Your task to perform on an android device: Open calendar and show me the third week of next month Image 0: 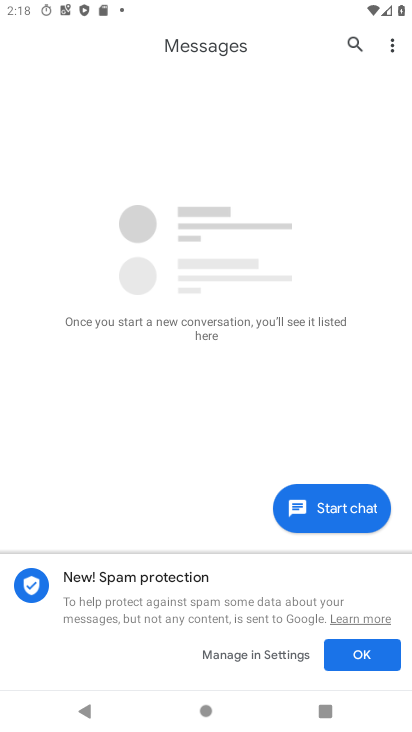
Step 0: press home button
Your task to perform on an android device: Open calendar and show me the third week of next month Image 1: 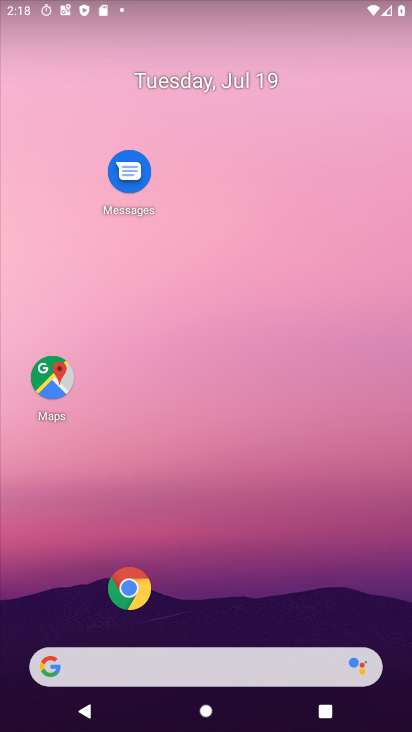
Step 1: drag from (27, 700) to (203, 237)
Your task to perform on an android device: Open calendar and show me the third week of next month Image 2: 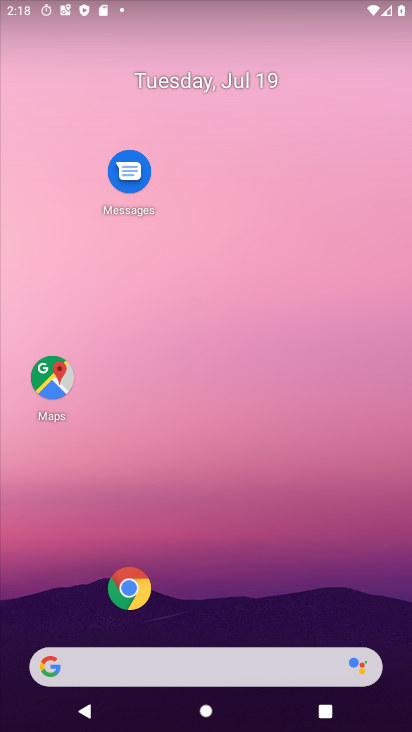
Step 2: drag from (244, 183) to (306, 60)
Your task to perform on an android device: Open calendar and show me the third week of next month Image 3: 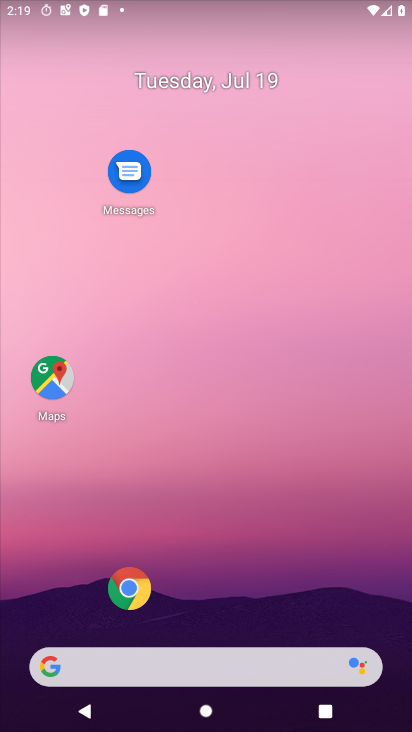
Step 3: drag from (80, 582) to (276, 130)
Your task to perform on an android device: Open calendar and show me the third week of next month Image 4: 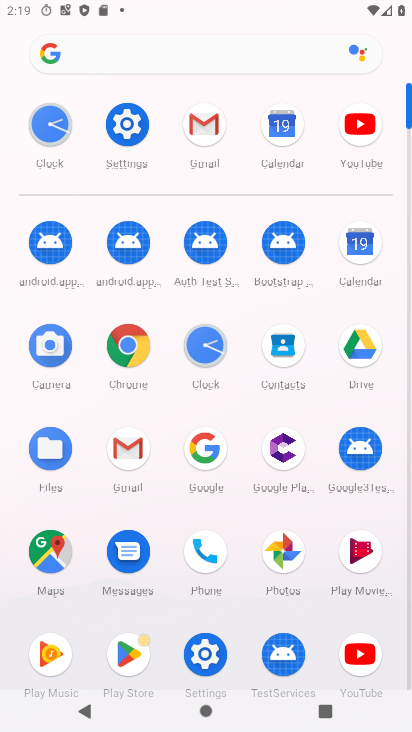
Step 4: click (371, 237)
Your task to perform on an android device: Open calendar and show me the third week of next month Image 5: 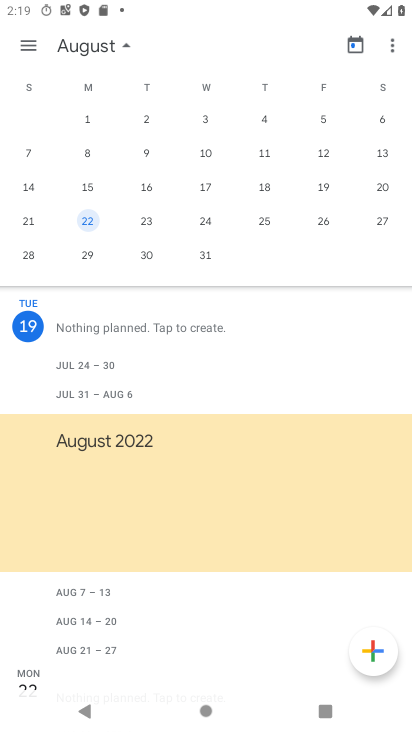
Step 5: drag from (374, 179) to (35, 121)
Your task to perform on an android device: Open calendar and show me the third week of next month Image 6: 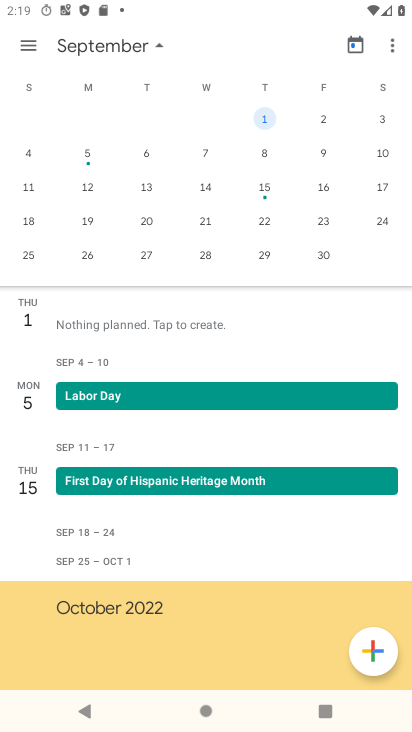
Step 6: drag from (43, 121) to (273, 140)
Your task to perform on an android device: Open calendar and show me the third week of next month Image 7: 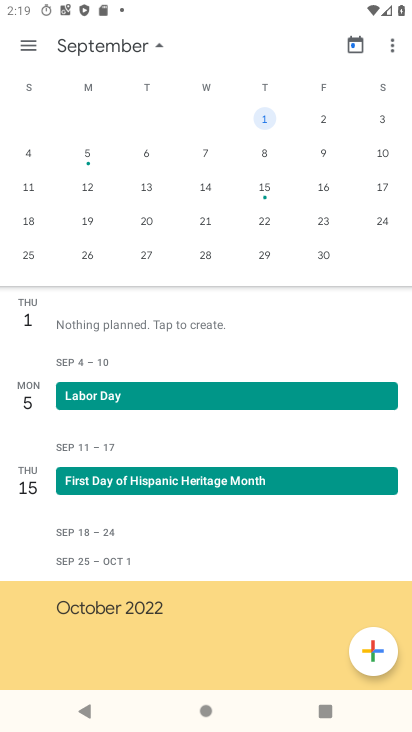
Step 7: drag from (3, 133) to (339, 169)
Your task to perform on an android device: Open calendar and show me the third week of next month Image 8: 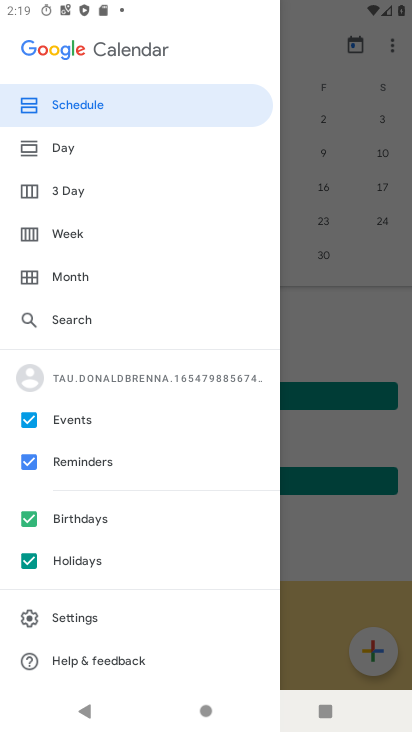
Step 8: click (301, 276)
Your task to perform on an android device: Open calendar and show me the third week of next month Image 9: 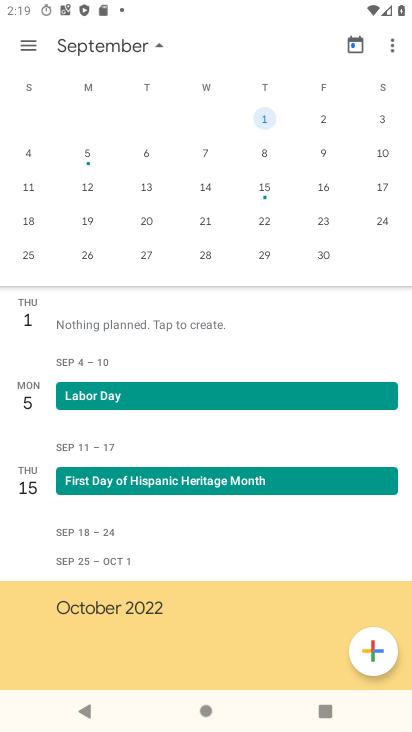
Step 9: drag from (23, 126) to (381, 162)
Your task to perform on an android device: Open calendar and show me the third week of next month Image 10: 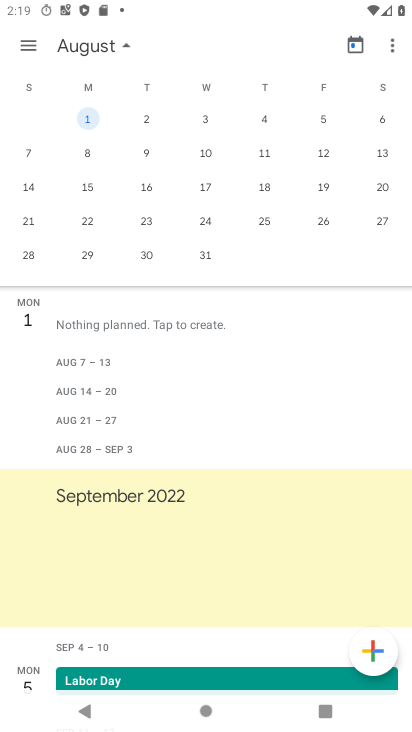
Step 10: click (84, 185)
Your task to perform on an android device: Open calendar and show me the third week of next month Image 11: 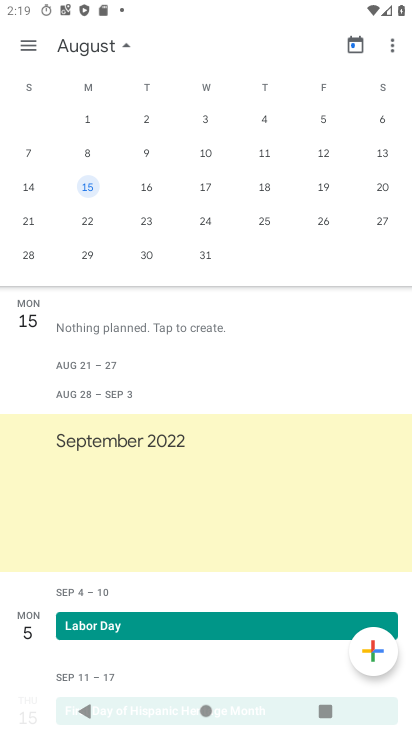
Step 11: task complete